Your task to perform on an android device: Find coffee shops on Maps Image 0: 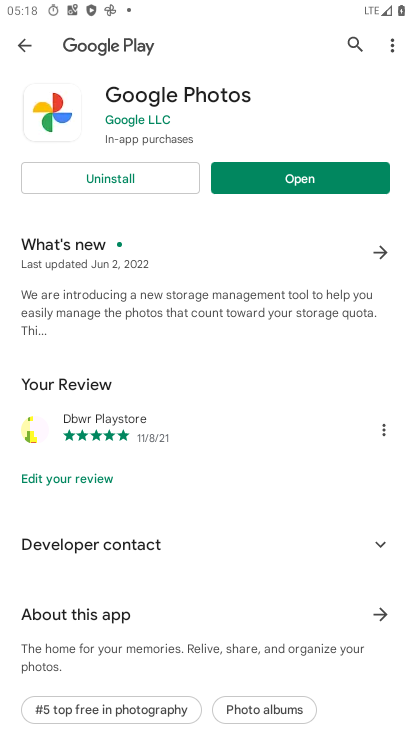
Step 0: press home button
Your task to perform on an android device: Find coffee shops on Maps Image 1: 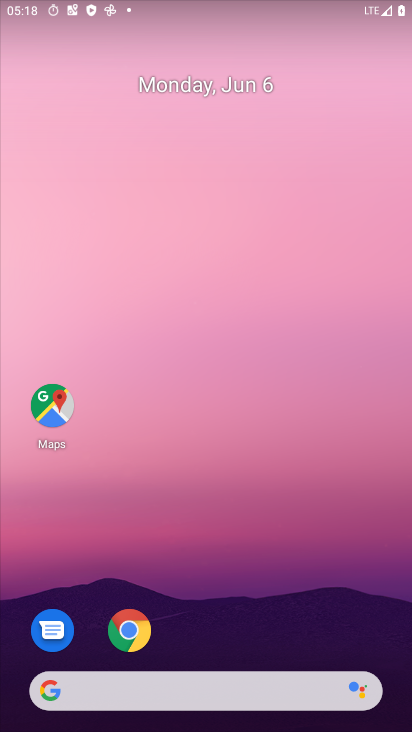
Step 1: drag from (291, 482) to (313, 50)
Your task to perform on an android device: Find coffee shops on Maps Image 2: 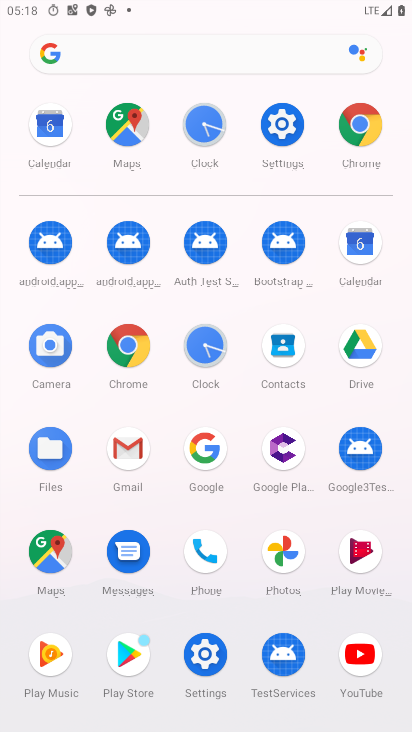
Step 2: drag from (235, 494) to (248, 79)
Your task to perform on an android device: Find coffee shops on Maps Image 3: 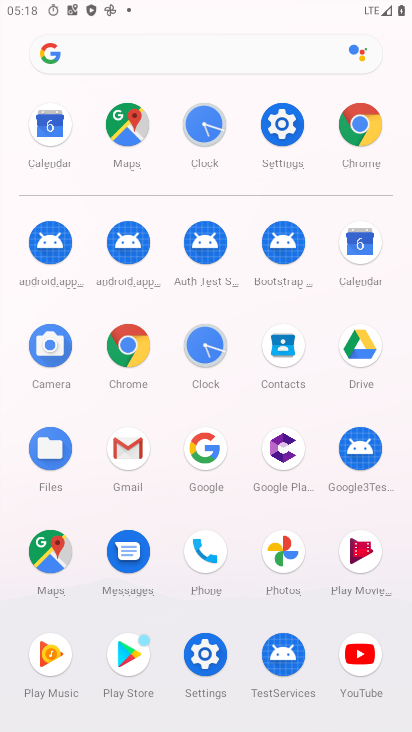
Step 3: click (56, 549)
Your task to perform on an android device: Find coffee shops on Maps Image 4: 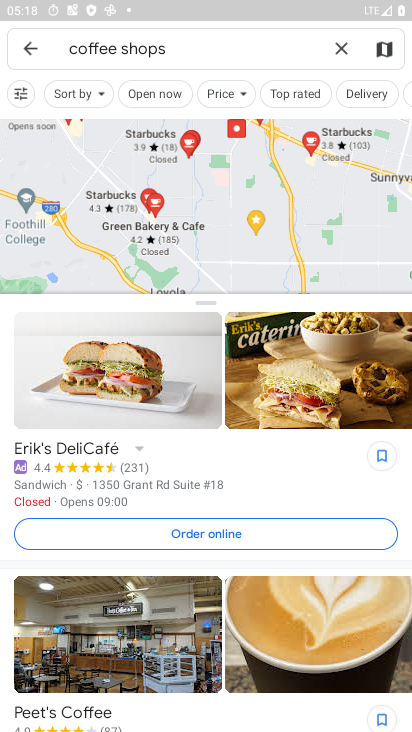
Step 4: task complete